Your task to perform on an android device: change keyboard looks Image 0: 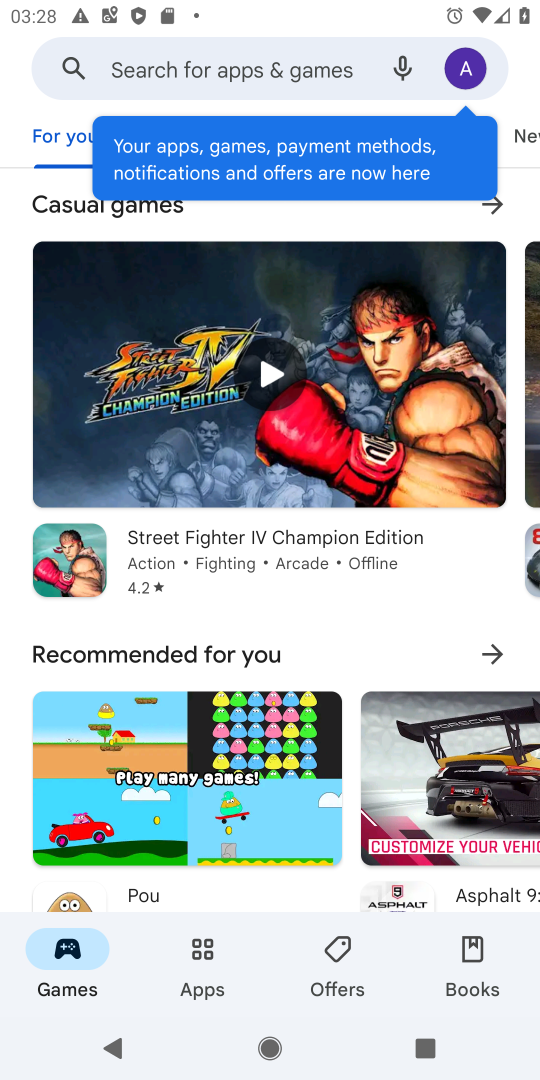
Step 0: press home button
Your task to perform on an android device: change keyboard looks Image 1: 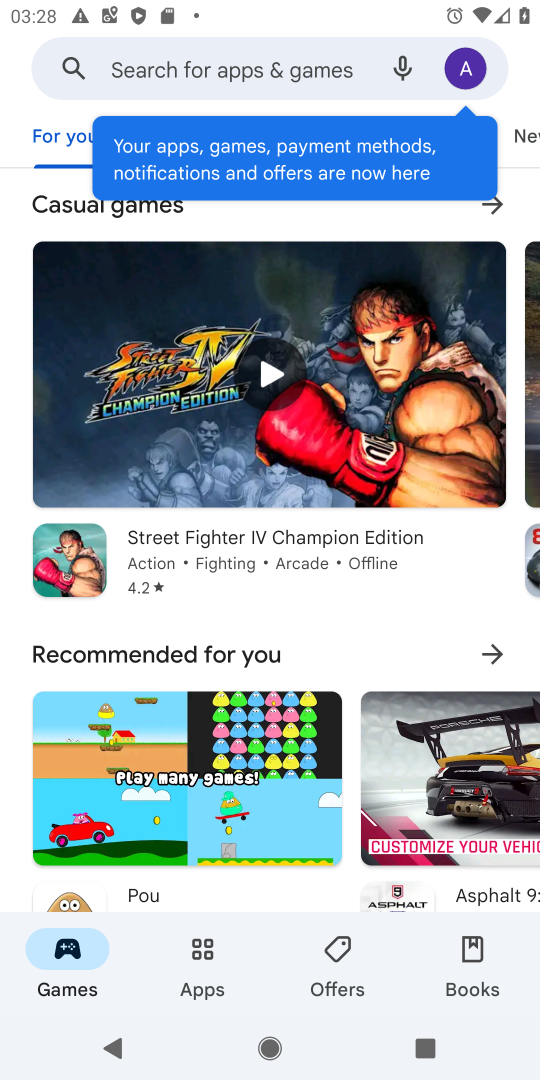
Step 1: press home button
Your task to perform on an android device: change keyboard looks Image 2: 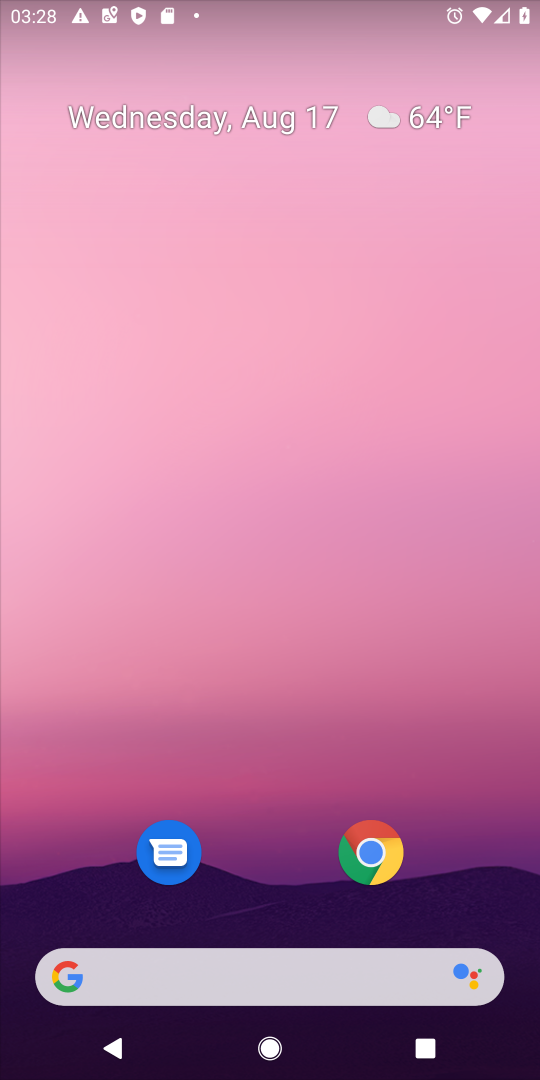
Step 2: drag from (275, 764) to (294, 111)
Your task to perform on an android device: change keyboard looks Image 3: 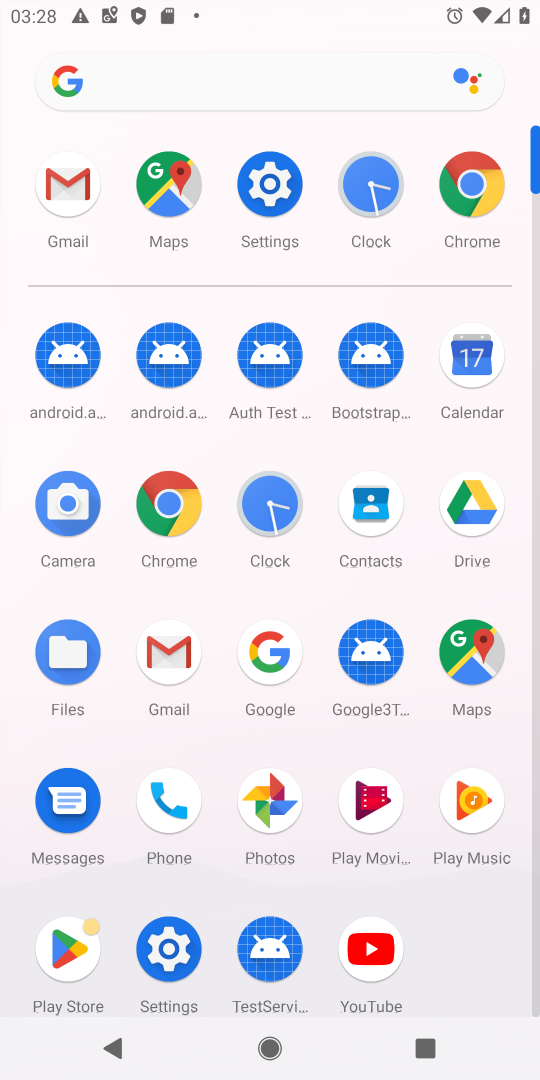
Step 3: click (157, 937)
Your task to perform on an android device: change keyboard looks Image 4: 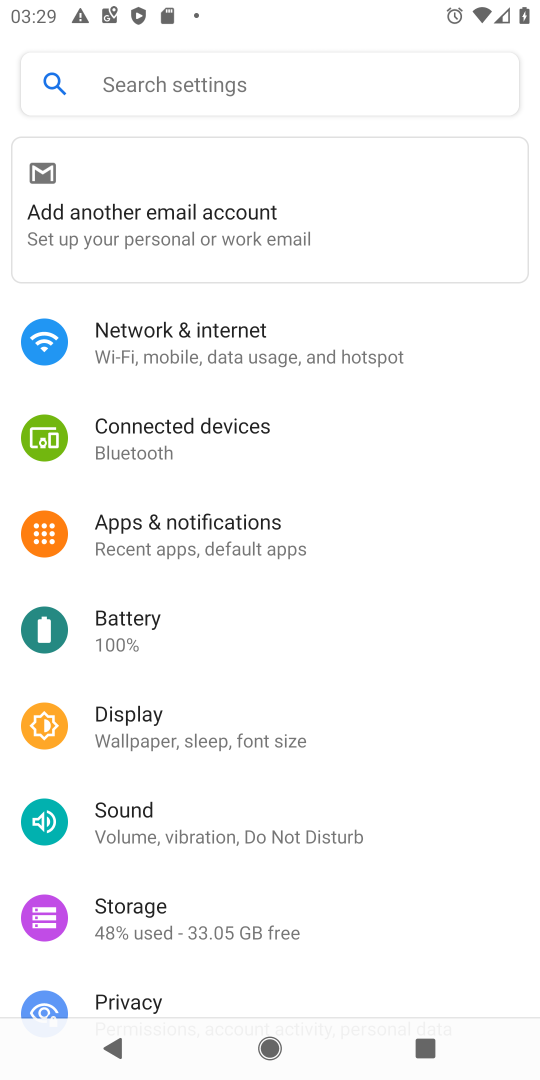
Step 4: drag from (253, 940) to (425, 123)
Your task to perform on an android device: change keyboard looks Image 5: 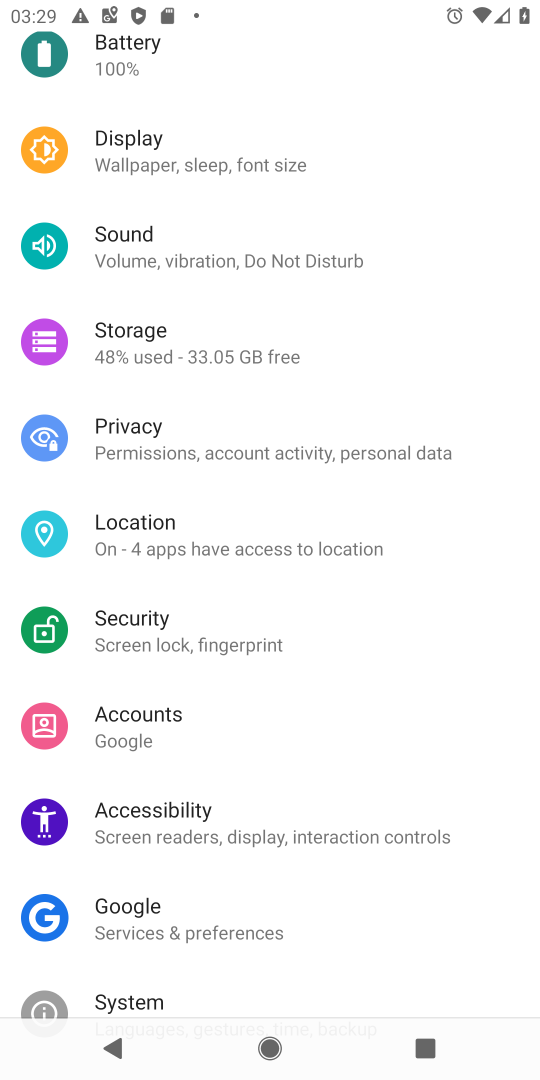
Step 5: drag from (335, 775) to (445, 185)
Your task to perform on an android device: change keyboard looks Image 6: 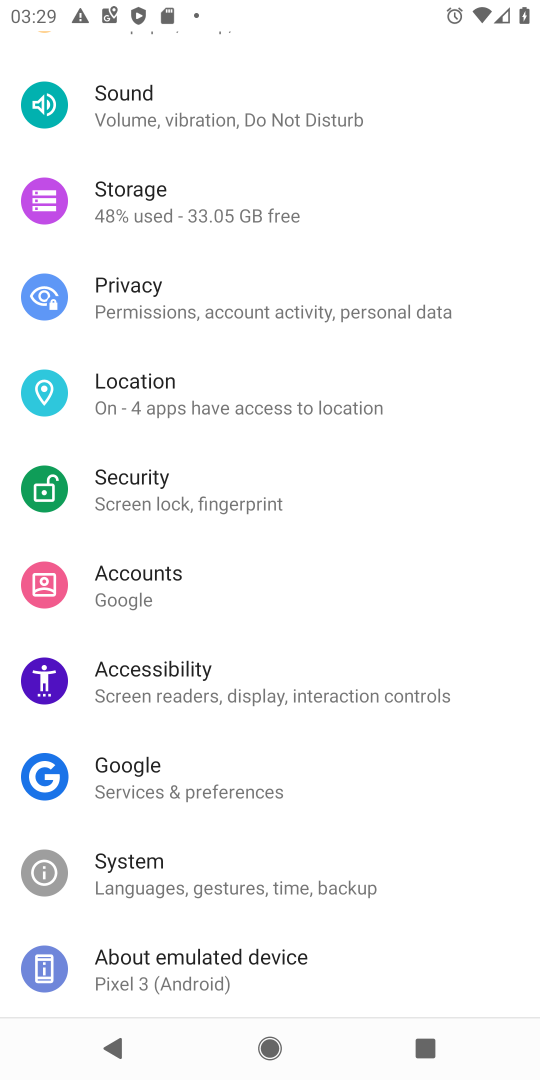
Step 6: drag from (174, 403) to (259, 97)
Your task to perform on an android device: change keyboard looks Image 7: 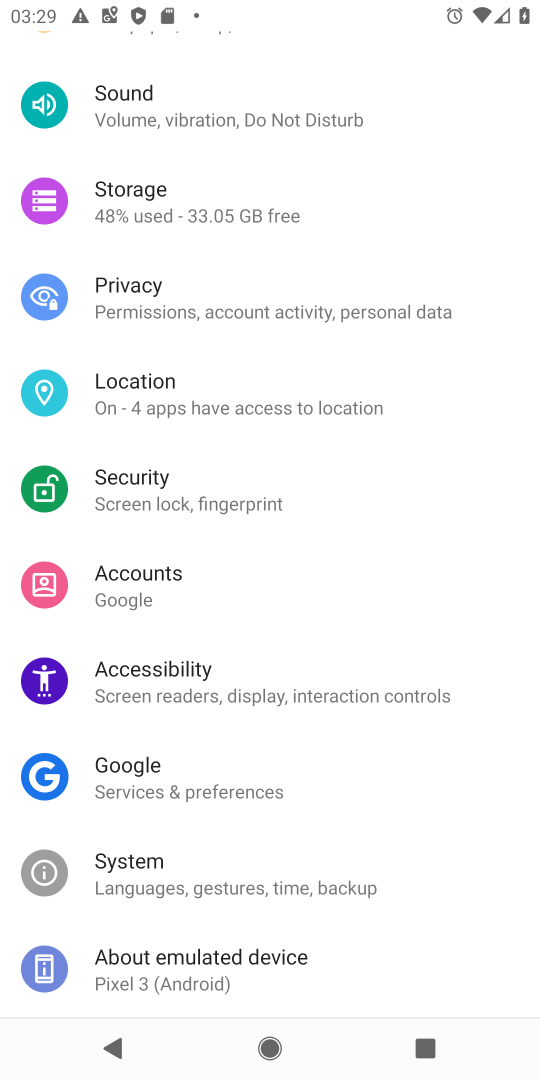
Step 7: click (140, 868)
Your task to perform on an android device: change keyboard looks Image 8: 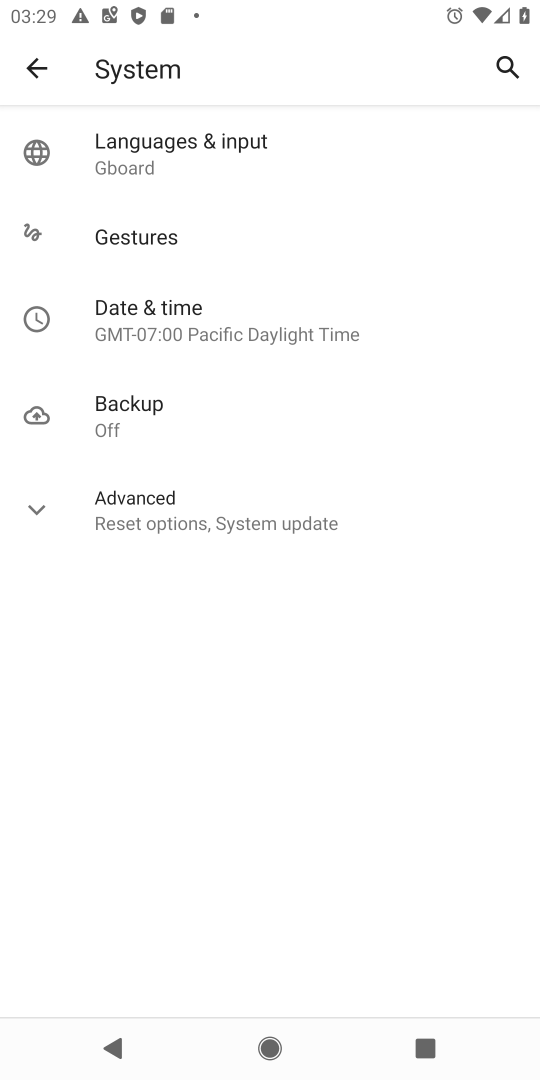
Step 8: click (143, 140)
Your task to perform on an android device: change keyboard looks Image 9: 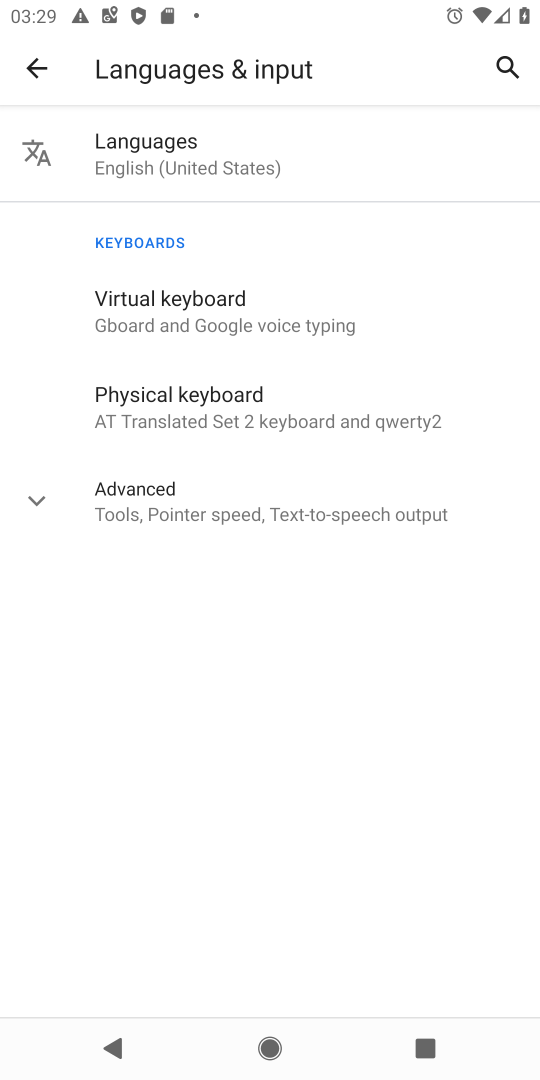
Step 9: click (157, 326)
Your task to perform on an android device: change keyboard looks Image 10: 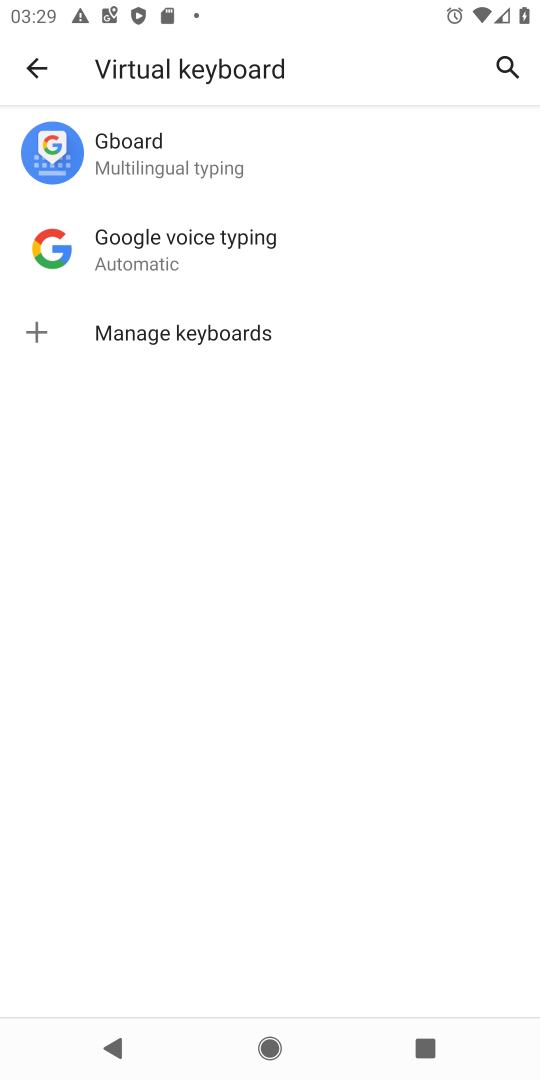
Step 10: click (171, 172)
Your task to perform on an android device: change keyboard looks Image 11: 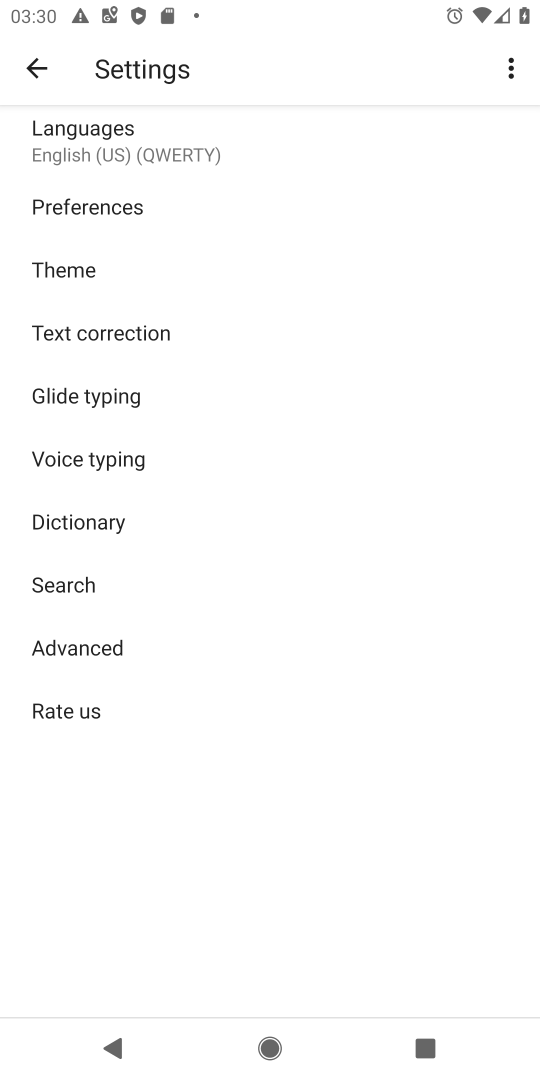
Step 11: click (60, 256)
Your task to perform on an android device: change keyboard looks Image 12: 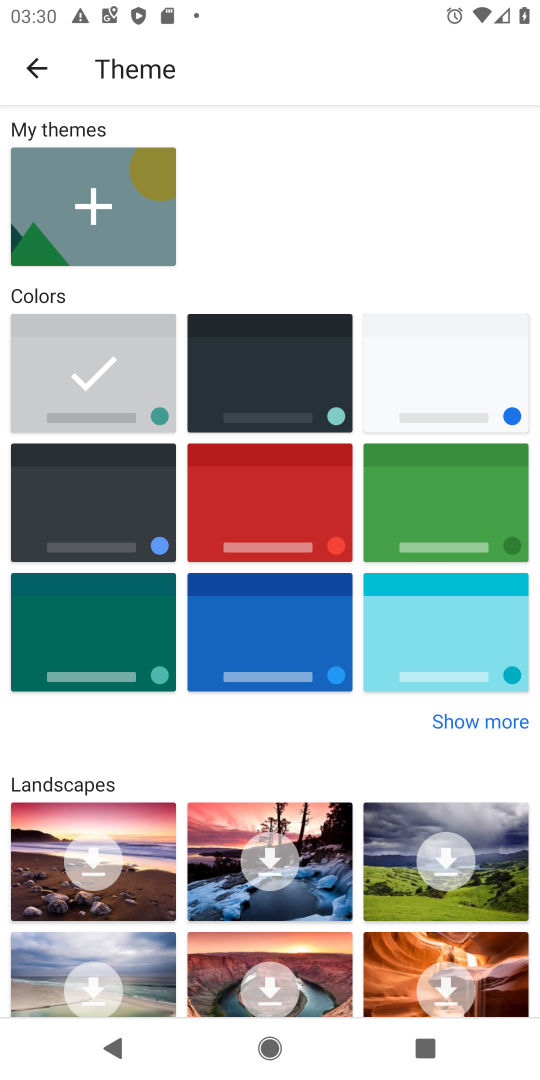
Step 12: click (468, 348)
Your task to perform on an android device: change keyboard looks Image 13: 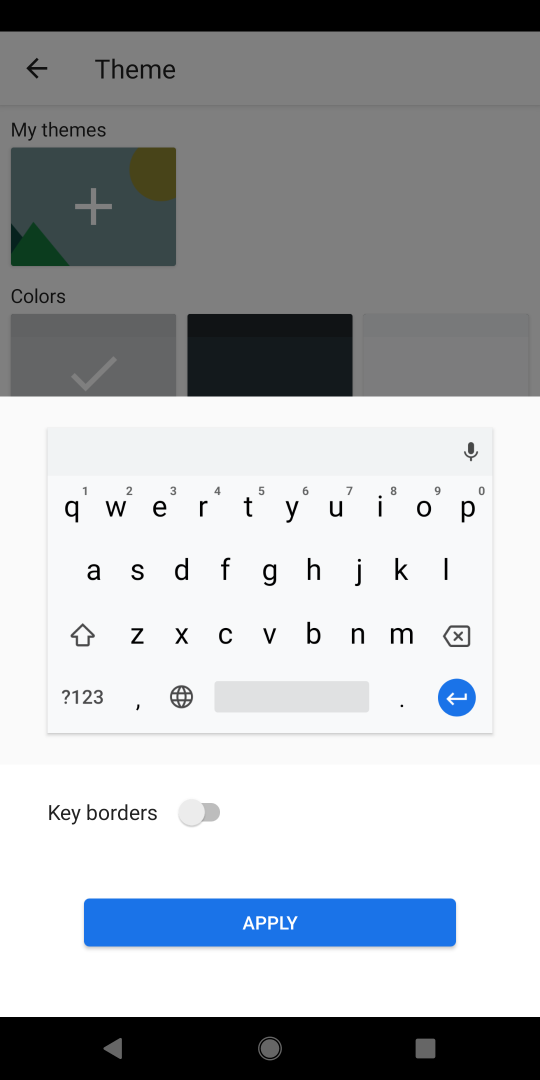
Step 13: click (354, 908)
Your task to perform on an android device: change keyboard looks Image 14: 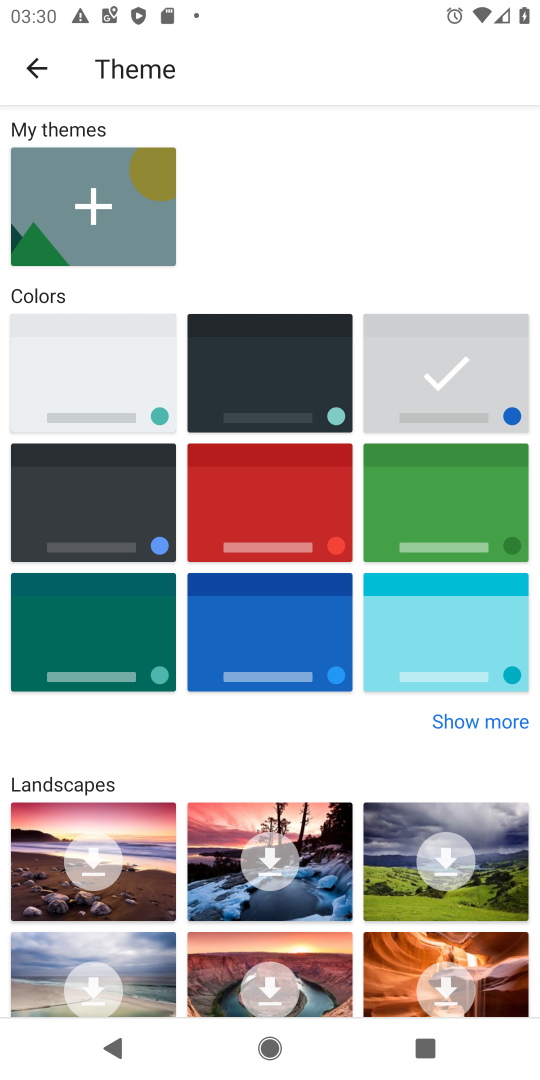
Step 14: task complete